Your task to perform on an android device: remove spam from my inbox in the gmail app Image 0: 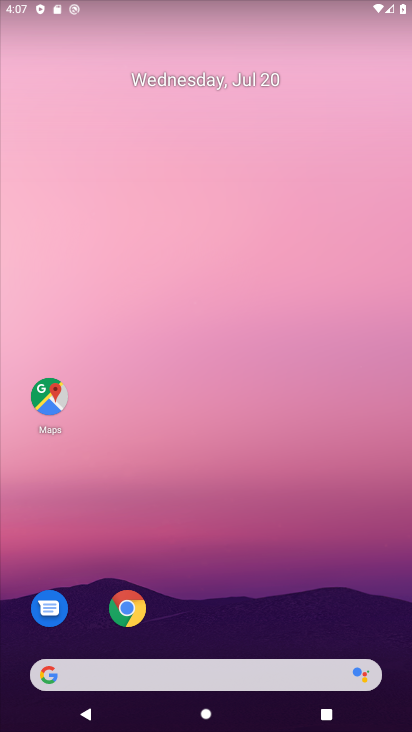
Step 0: drag from (229, 595) to (235, 119)
Your task to perform on an android device: remove spam from my inbox in the gmail app Image 1: 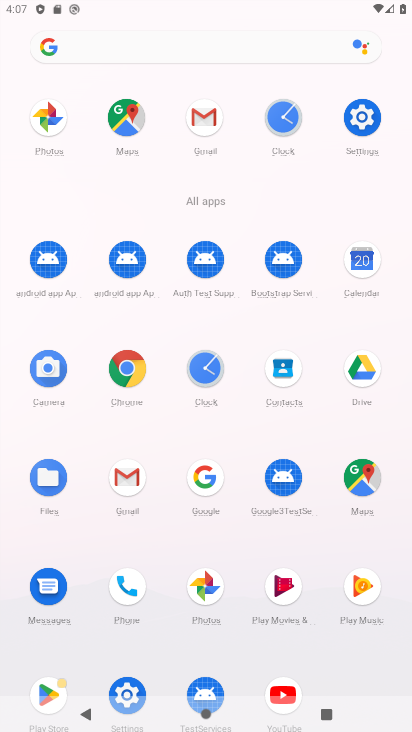
Step 1: click (122, 481)
Your task to perform on an android device: remove spam from my inbox in the gmail app Image 2: 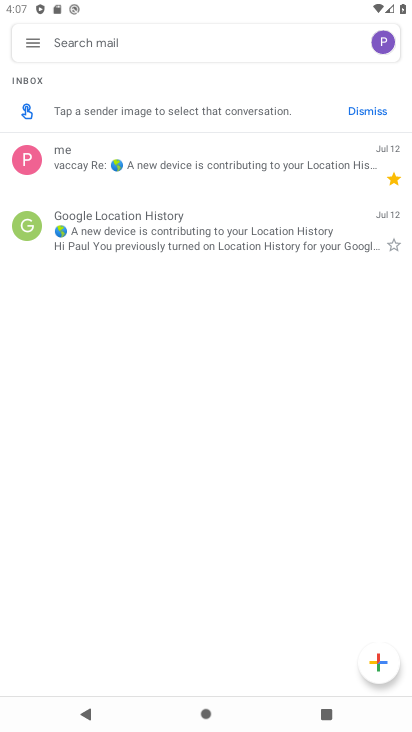
Step 2: click (32, 42)
Your task to perform on an android device: remove spam from my inbox in the gmail app Image 3: 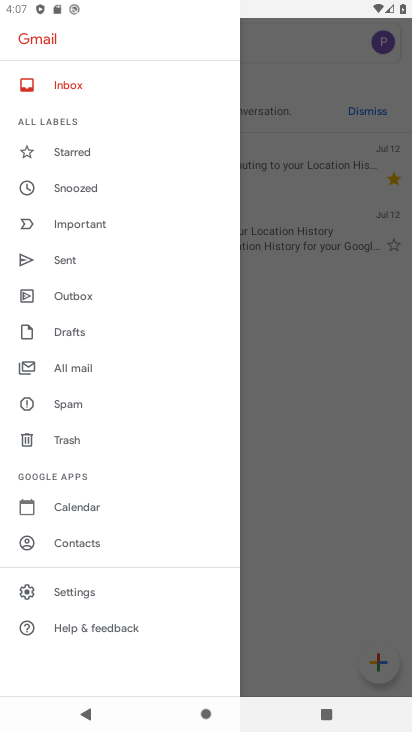
Step 3: click (97, 412)
Your task to perform on an android device: remove spam from my inbox in the gmail app Image 4: 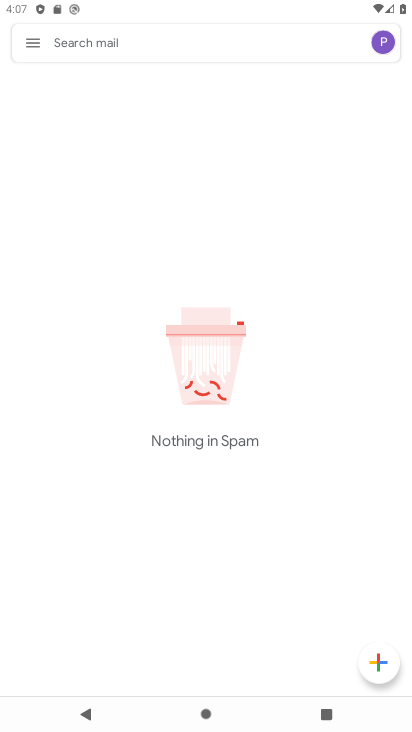
Step 4: task complete